Your task to perform on an android device: star an email in the gmail app Image 0: 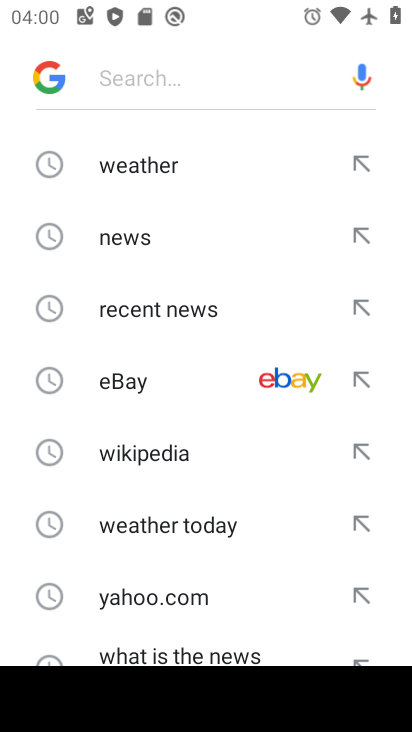
Step 0: press home button
Your task to perform on an android device: star an email in the gmail app Image 1: 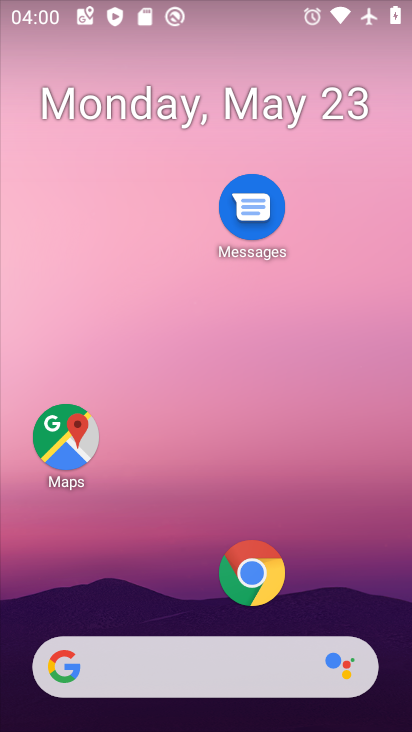
Step 1: drag from (255, 657) to (191, 75)
Your task to perform on an android device: star an email in the gmail app Image 2: 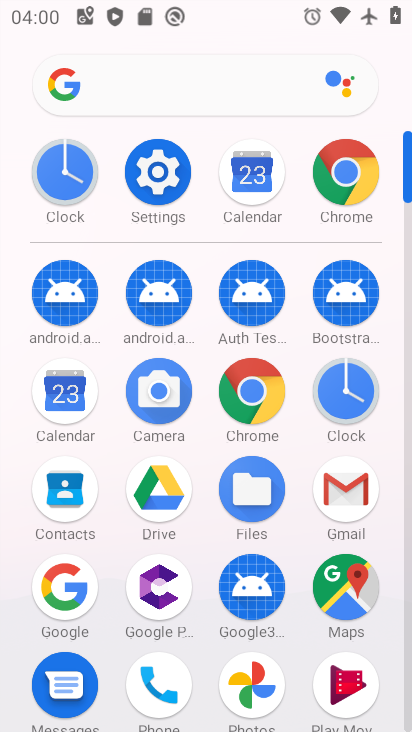
Step 2: click (340, 500)
Your task to perform on an android device: star an email in the gmail app Image 3: 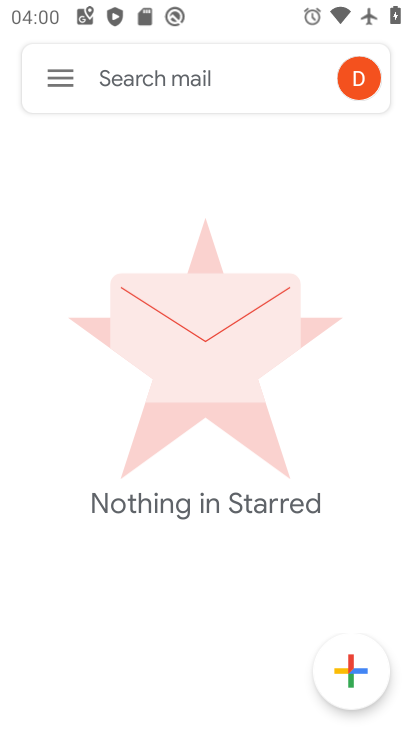
Step 3: click (61, 73)
Your task to perform on an android device: star an email in the gmail app Image 4: 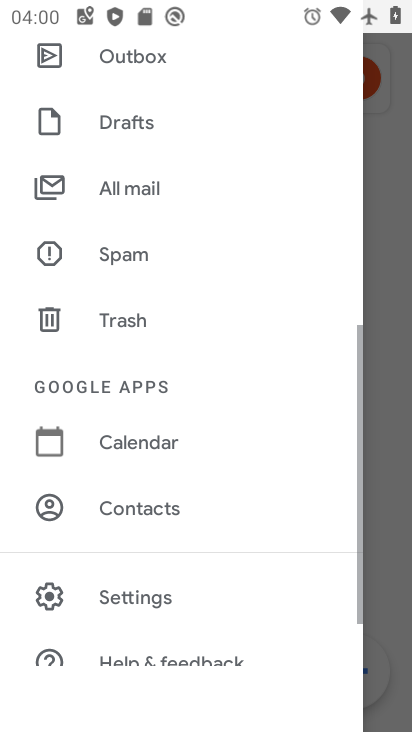
Step 4: drag from (176, 259) to (214, 673)
Your task to perform on an android device: star an email in the gmail app Image 5: 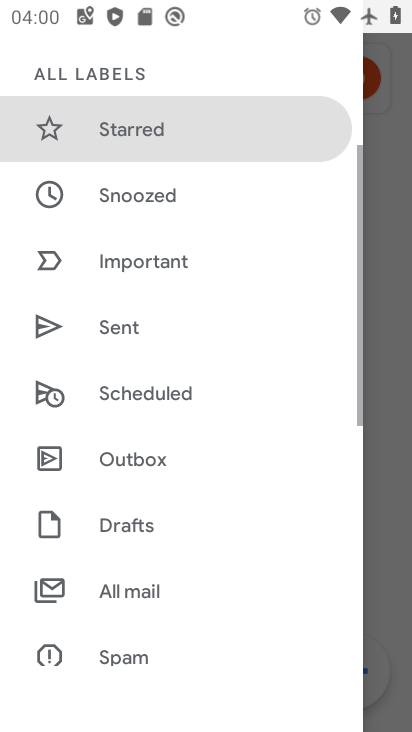
Step 5: click (165, 124)
Your task to perform on an android device: star an email in the gmail app Image 6: 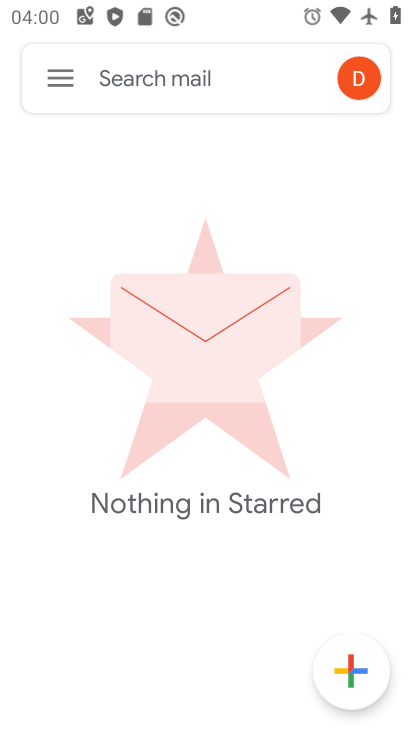
Step 6: task complete